Your task to perform on an android device: Go to Reddit.com Image 0: 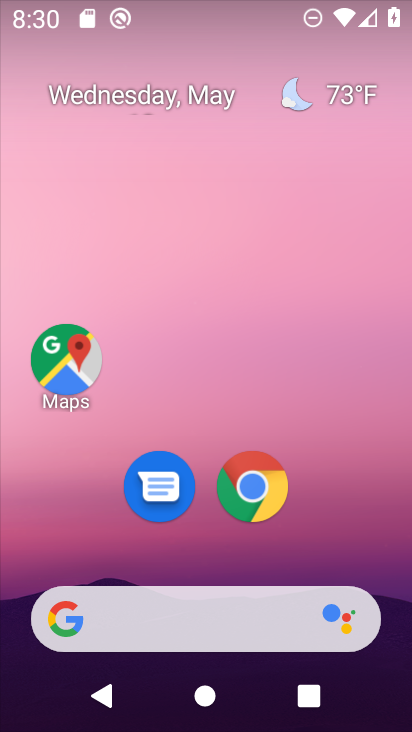
Step 0: click (250, 484)
Your task to perform on an android device: Go to Reddit.com Image 1: 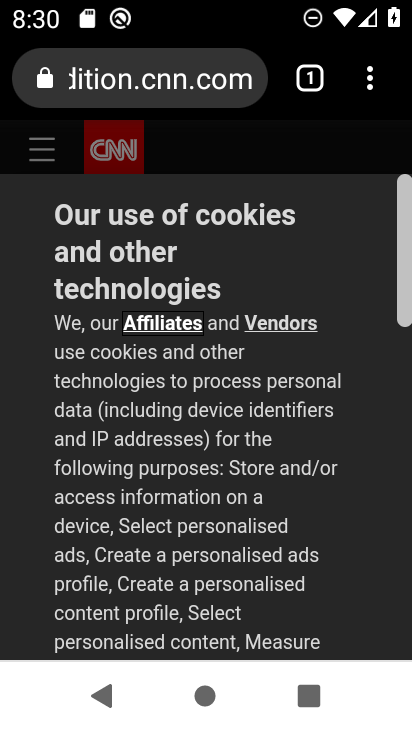
Step 1: click (164, 70)
Your task to perform on an android device: Go to Reddit.com Image 2: 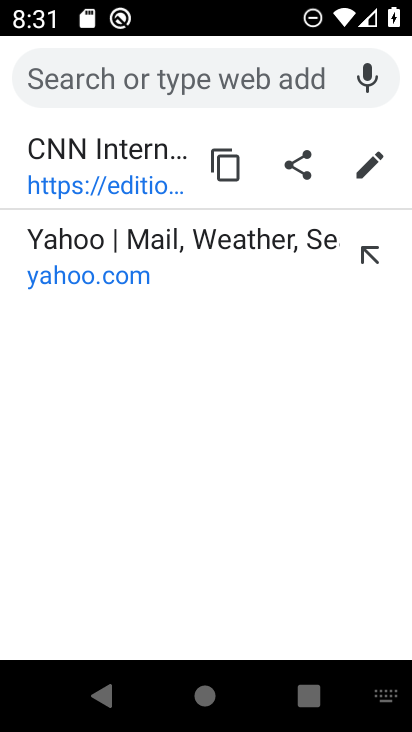
Step 2: type "reddit.com"
Your task to perform on an android device: Go to Reddit.com Image 3: 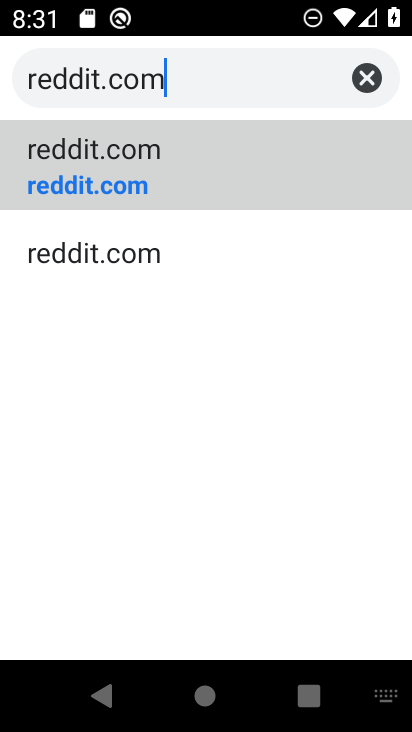
Step 3: click (83, 161)
Your task to perform on an android device: Go to Reddit.com Image 4: 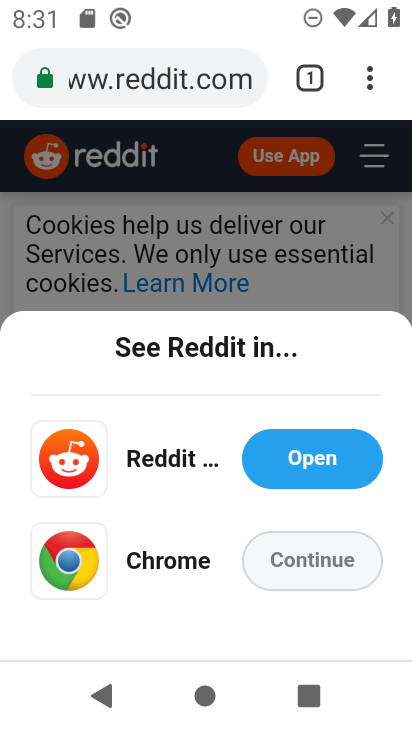
Step 4: task complete